Your task to perform on an android device: Open CNN.com Image 0: 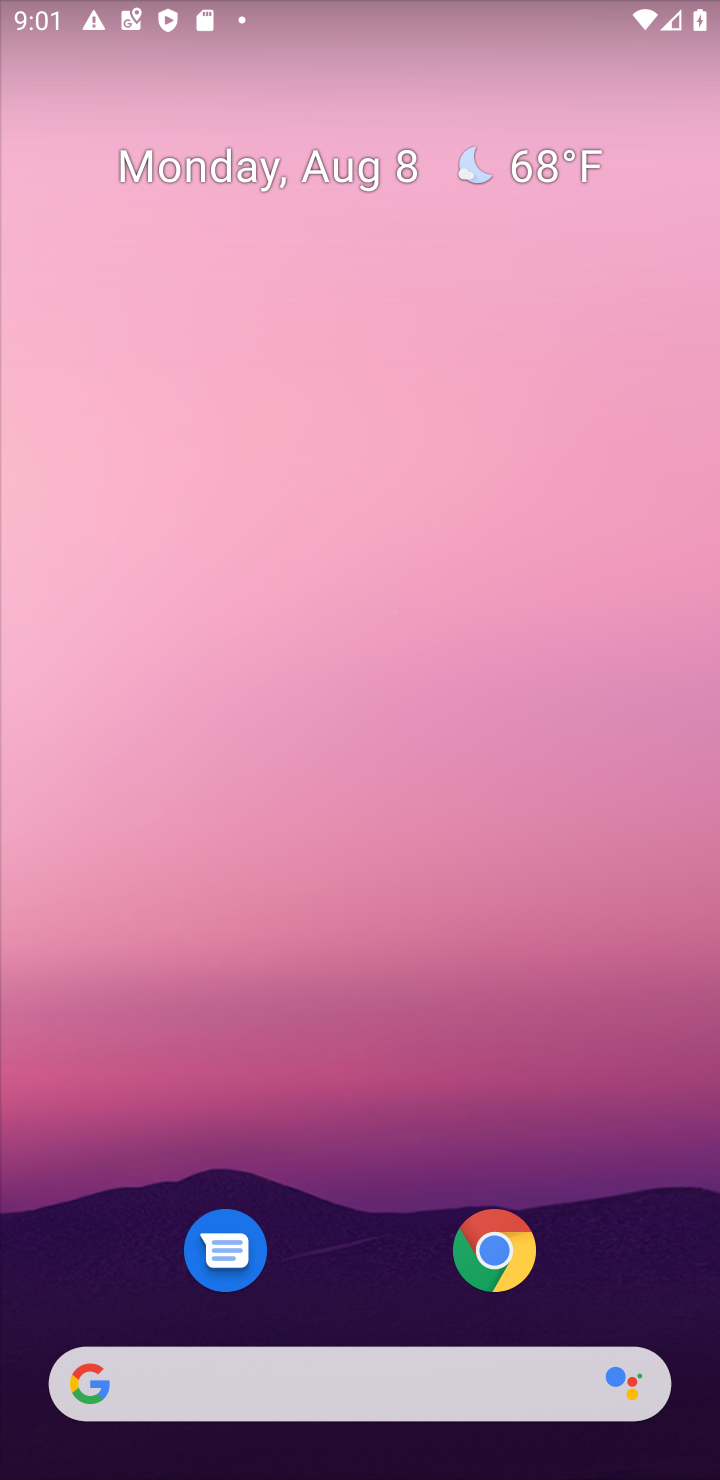
Step 0: click (536, 1265)
Your task to perform on an android device: Open CNN.com Image 1: 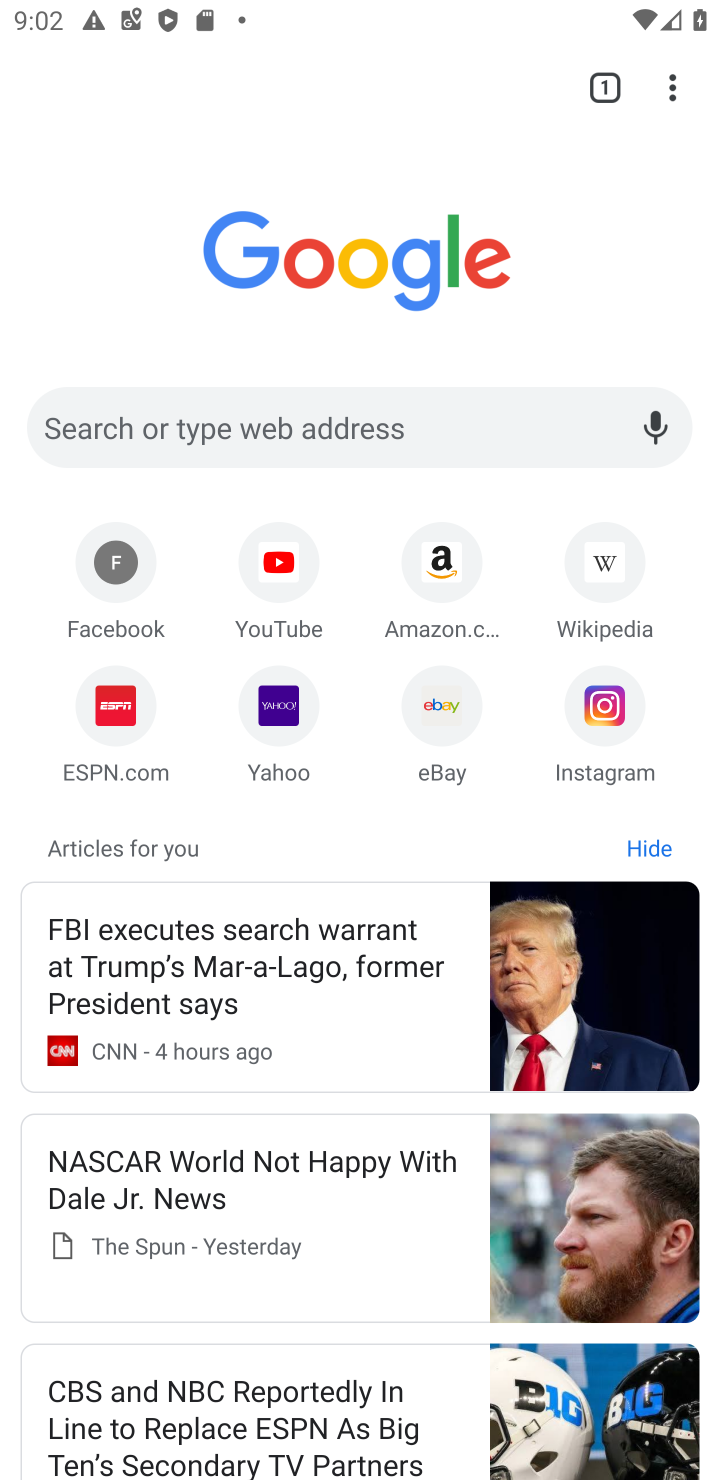
Step 1: click (470, 445)
Your task to perform on an android device: Open CNN.com Image 2: 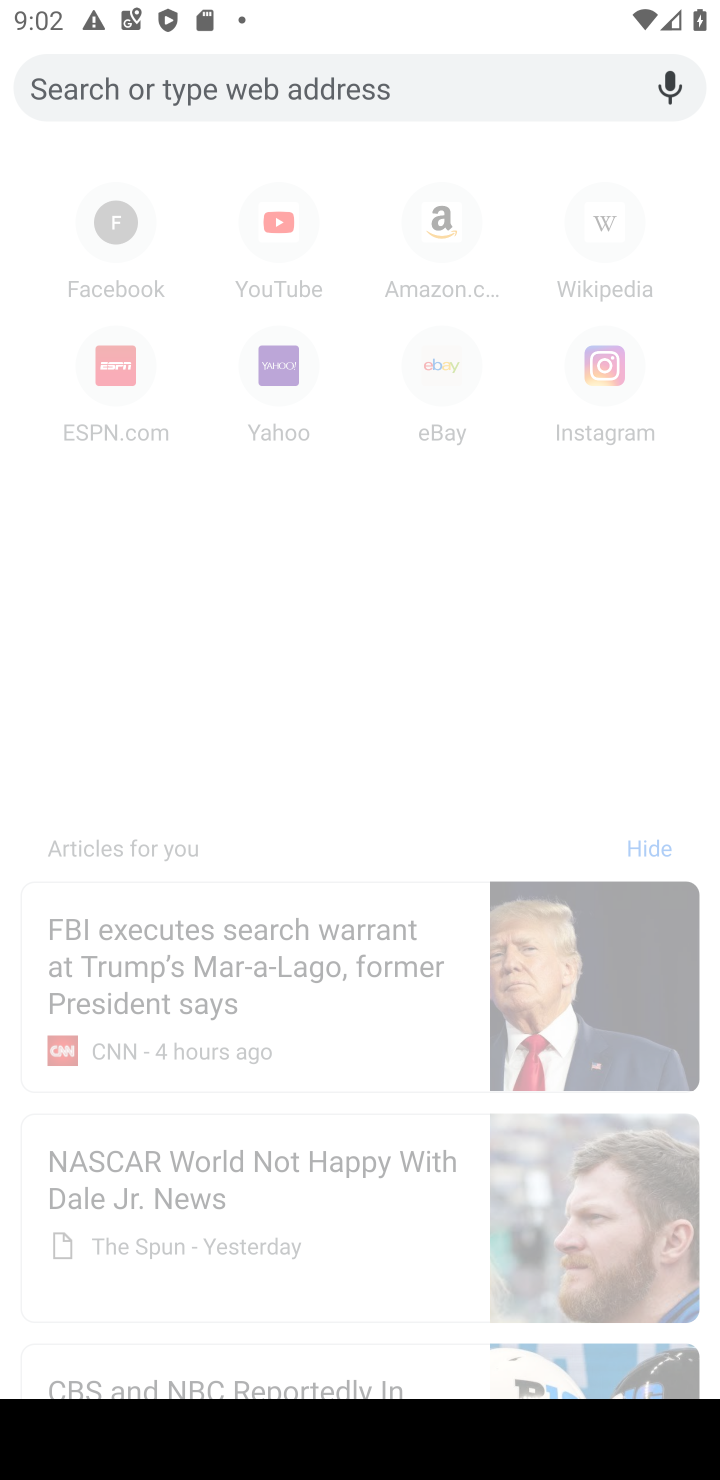
Step 2: type "cnn.com"
Your task to perform on an android device: Open CNN.com Image 3: 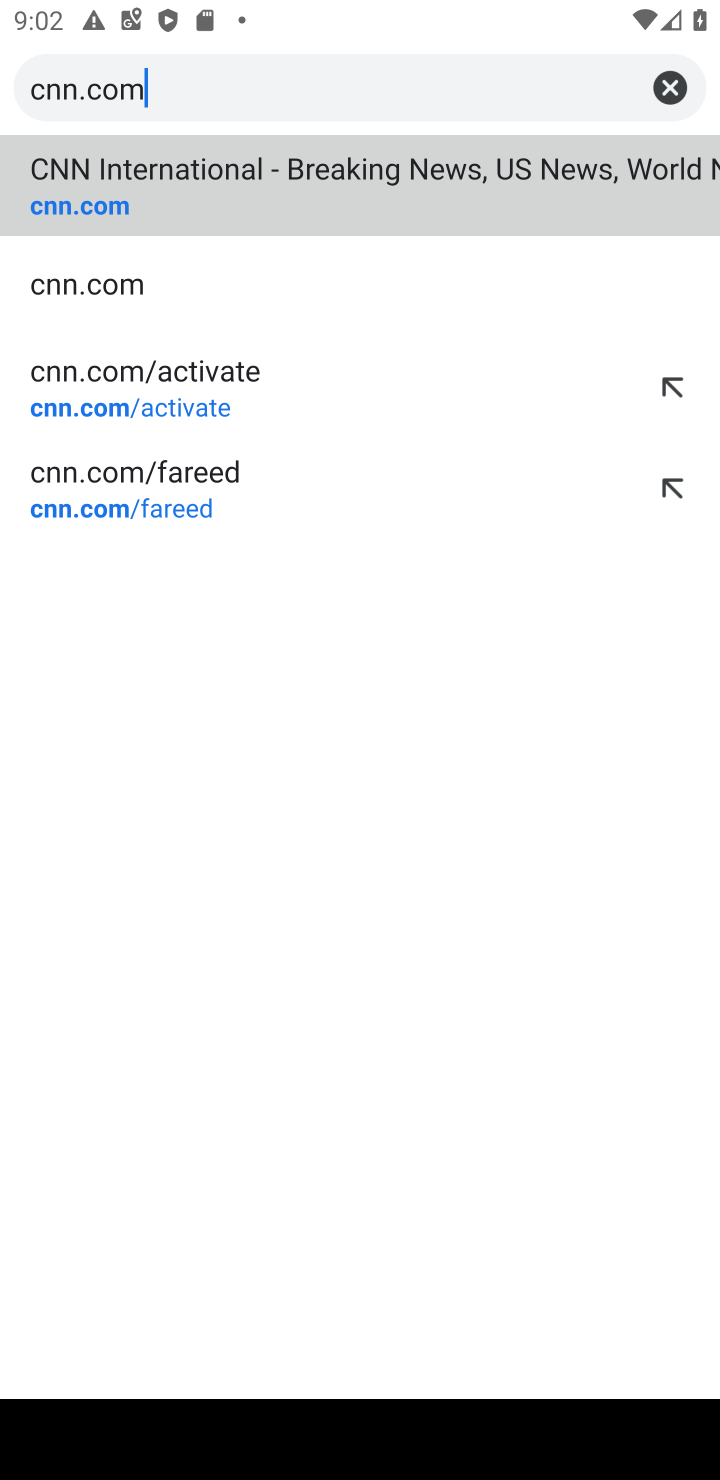
Step 3: click (441, 188)
Your task to perform on an android device: Open CNN.com Image 4: 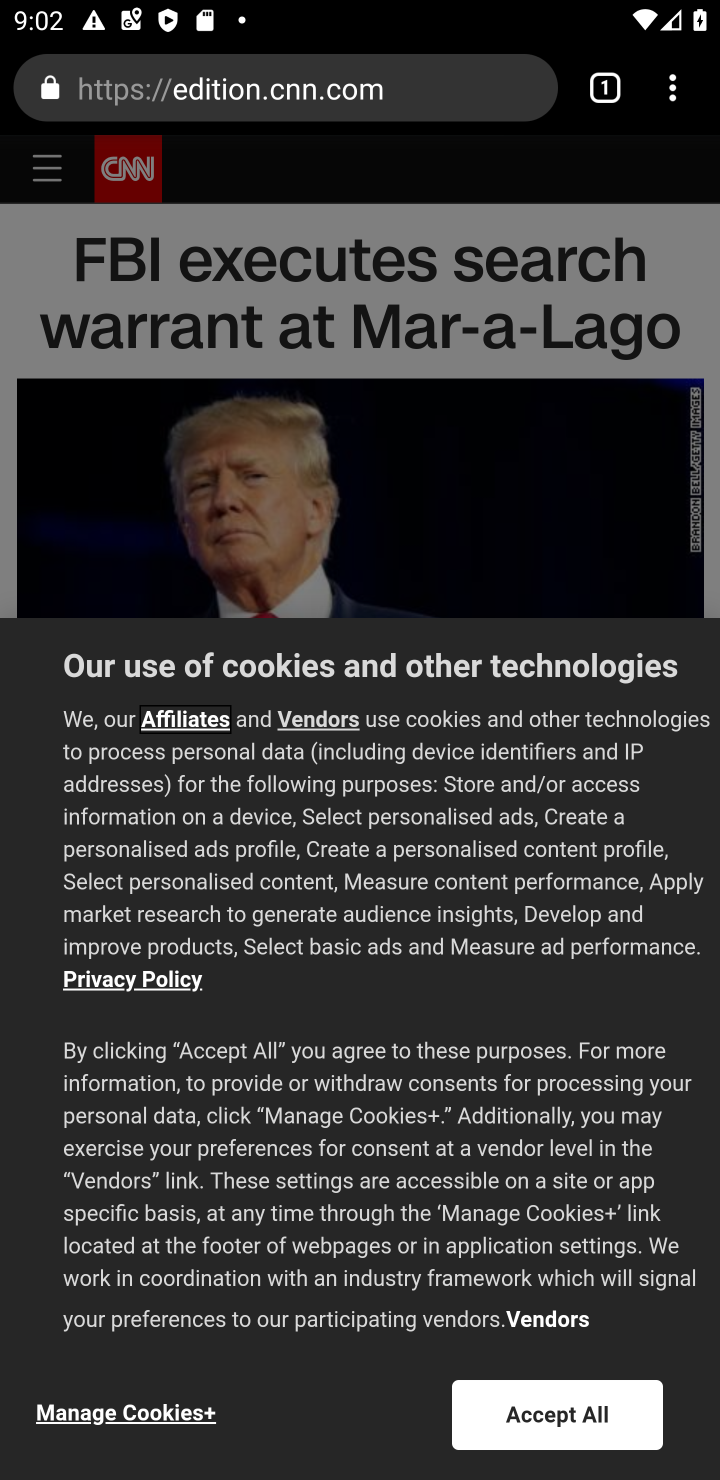
Step 4: task complete